Your task to perform on an android device: uninstall "Flipkart Online Shopping App" Image 0: 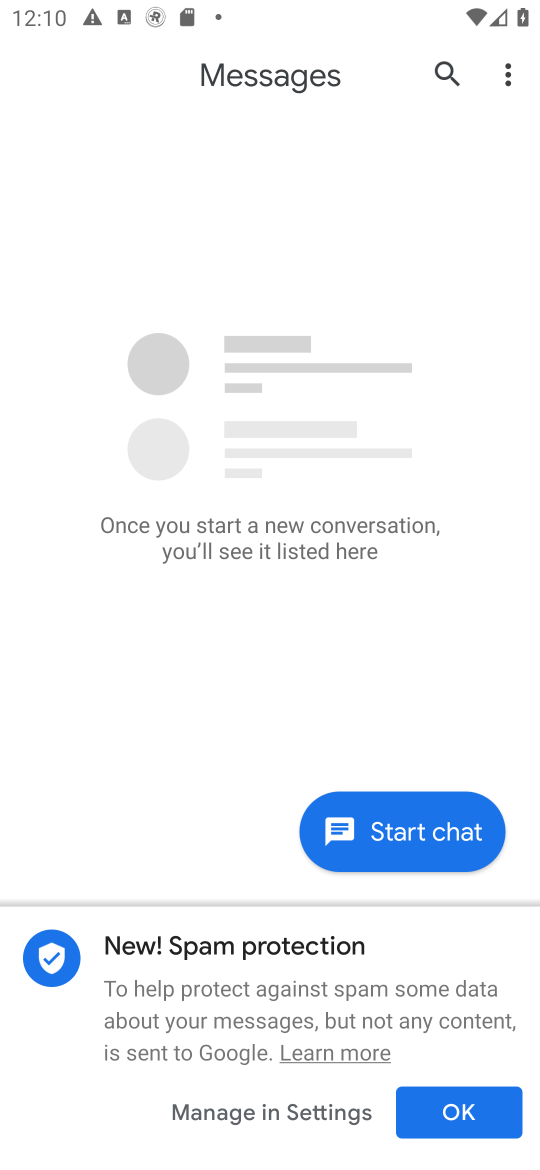
Step 0: press home button
Your task to perform on an android device: uninstall "Flipkart Online Shopping App" Image 1: 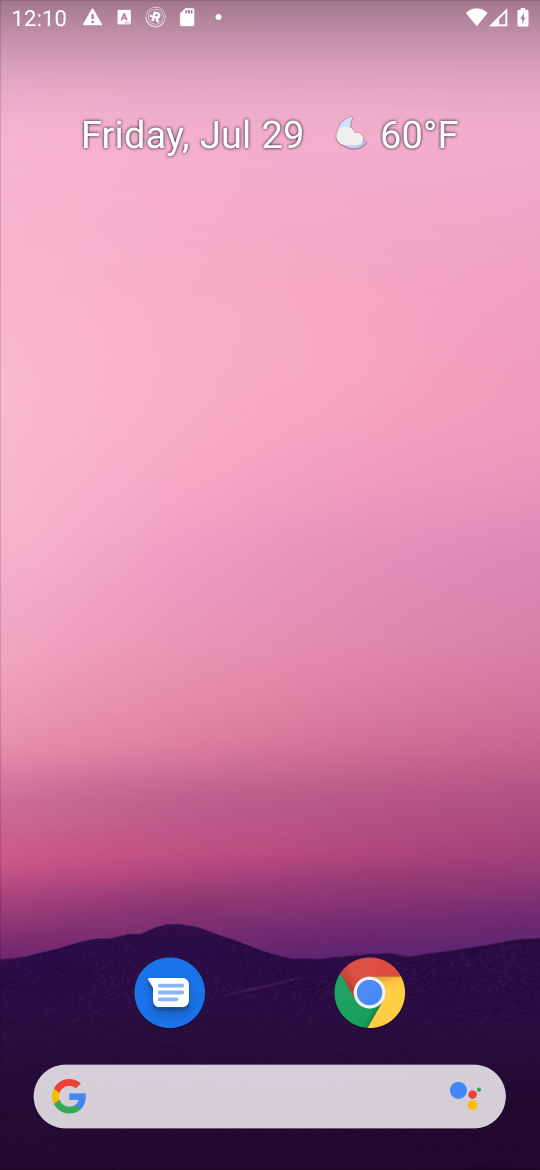
Step 1: drag from (238, 1098) to (331, 82)
Your task to perform on an android device: uninstall "Flipkart Online Shopping App" Image 2: 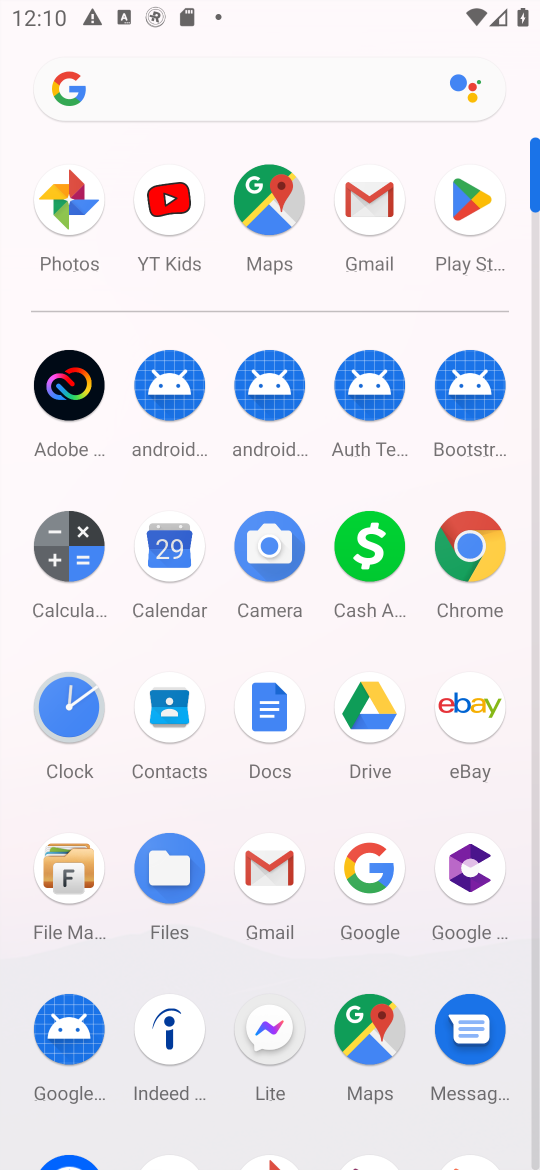
Step 2: click (463, 207)
Your task to perform on an android device: uninstall "Flipkart Online Shopping App" Image 3: 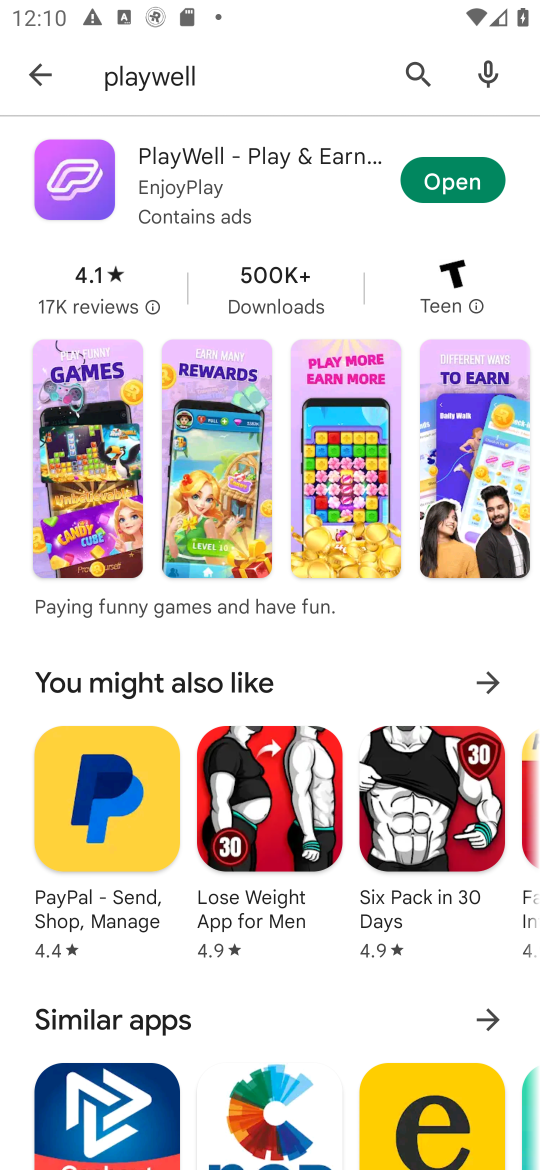
Step 3: click (401, 64)
Your task to perform on an android device: uninstall "Flipkart Online Shopping App" Image 4: 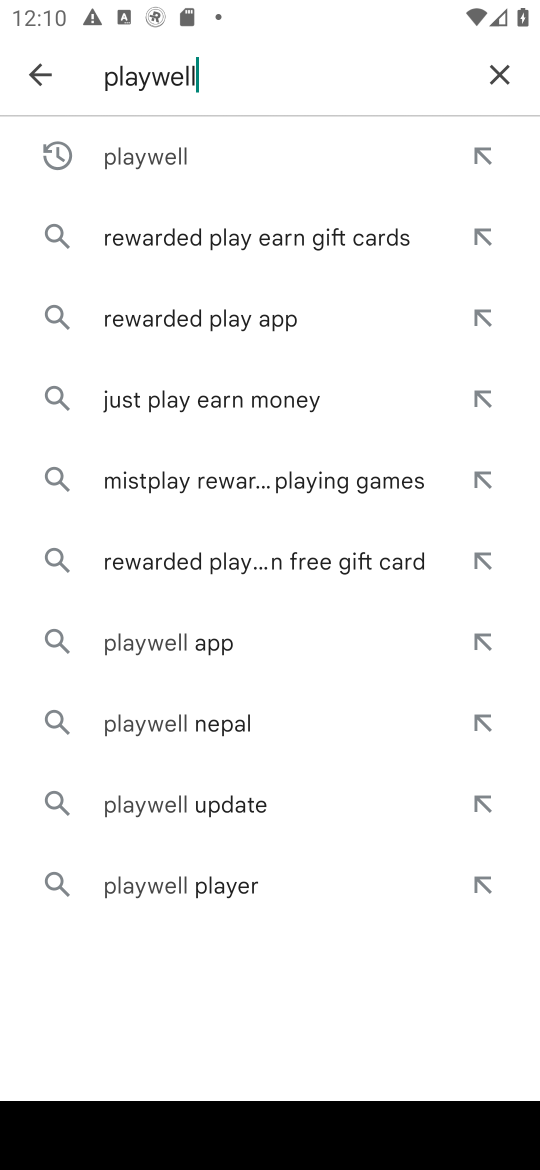
Step 4: click (490, 61)
Your task to perform on an android device: uninstall "Flipkart Online Shopping App" Image 5: 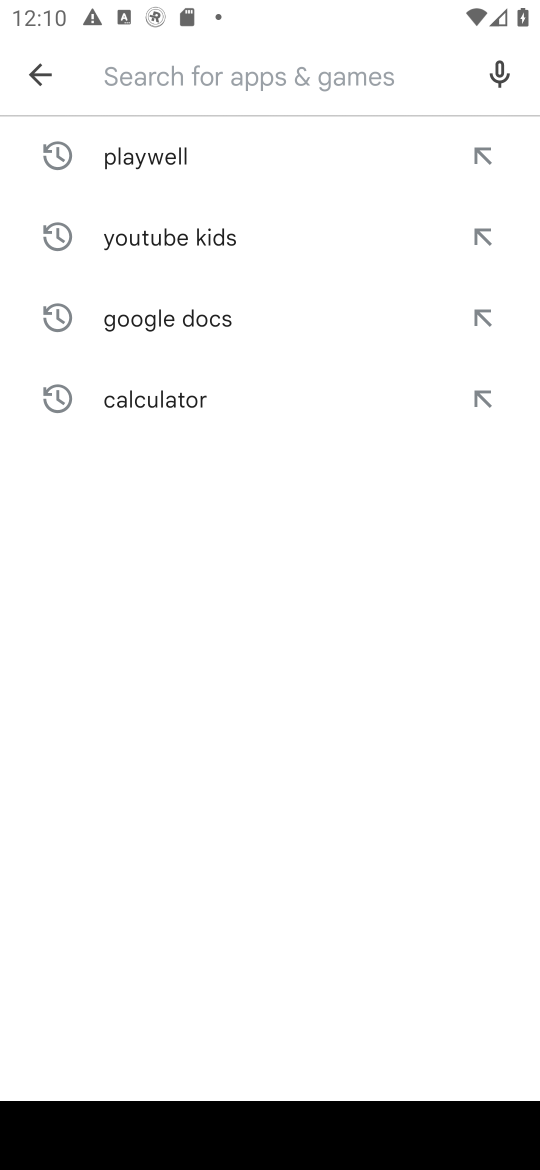
Step 5: click (171, 76)
Your task to perform on an android device: uninstall "Flipkart Online Shopping App" Image 6: 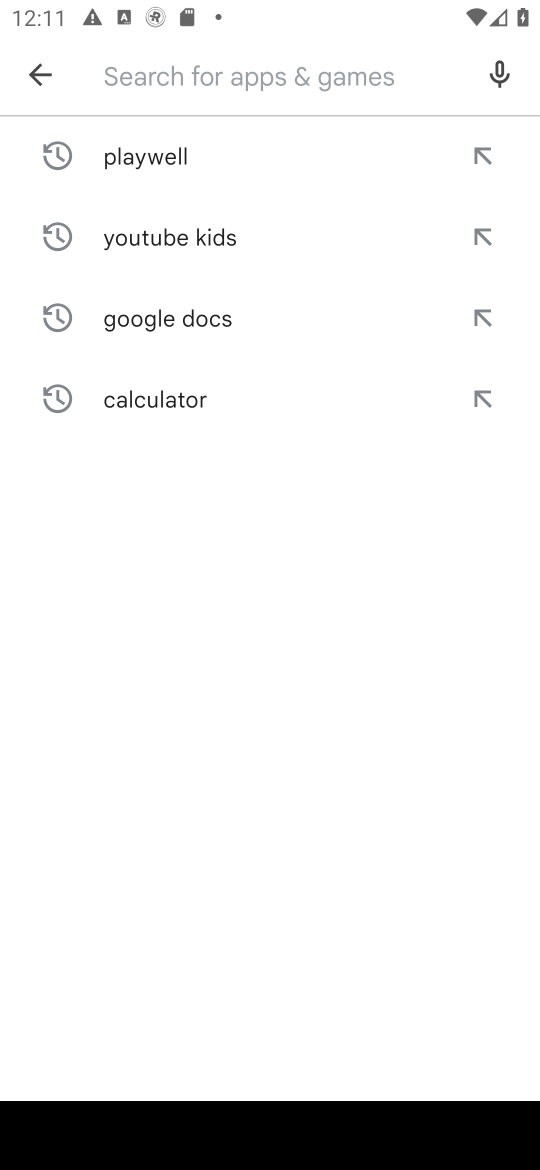
Step 6: type "Flipkart Online Shopping App"
Your task to perform on an android device: uninstall "Flipkart Online Shopping App" Image 7: 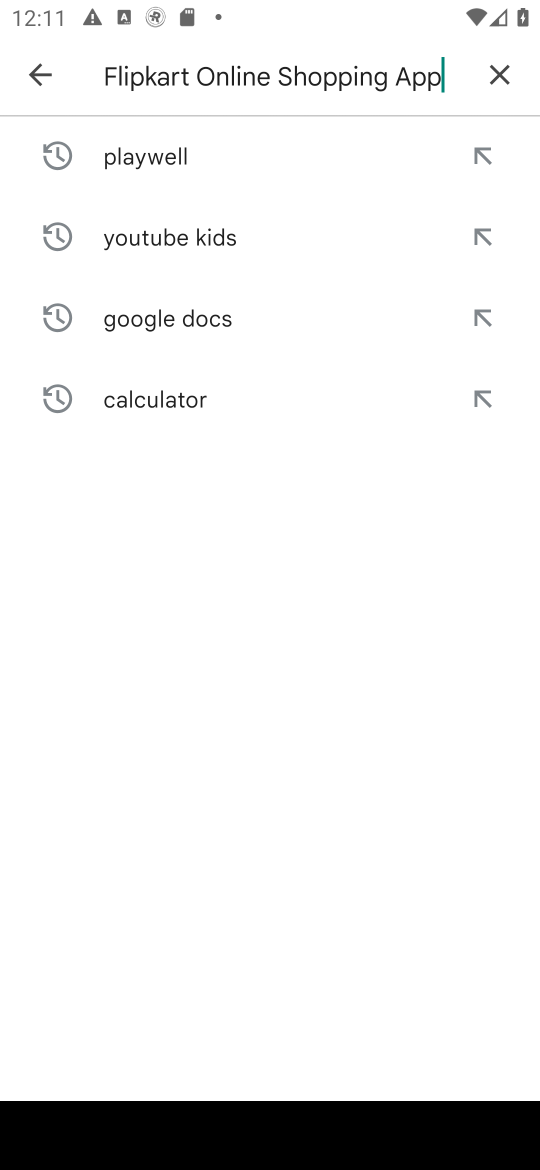
Step 7: type ""
Your task to perform on an android device: uninstall "Flipkart Online Shopping App" Image 8: 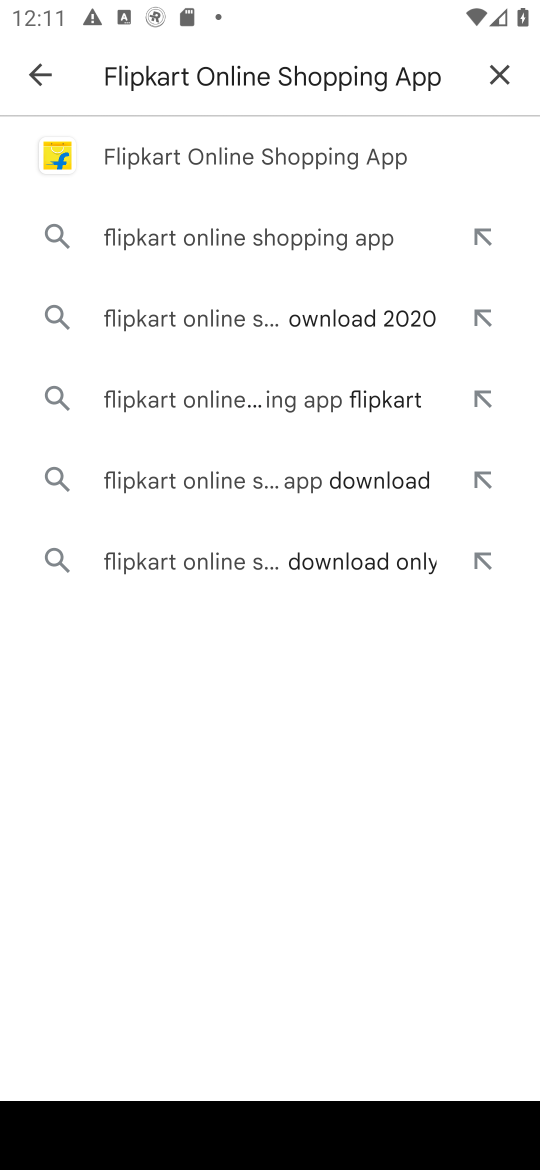
Step 8: click (194, 161)
Your task to perform on an android device: uninstall "Flipkart Online Shopping App" Image 9: 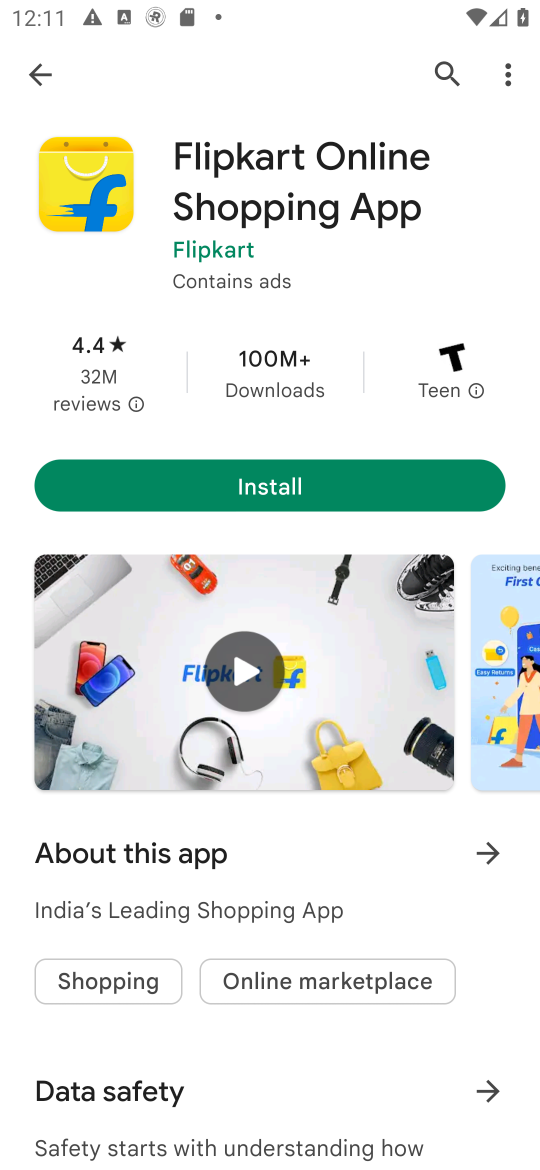
Step 9: task complete